Your task to perform on an android device: install app "Calculator" Image 0: 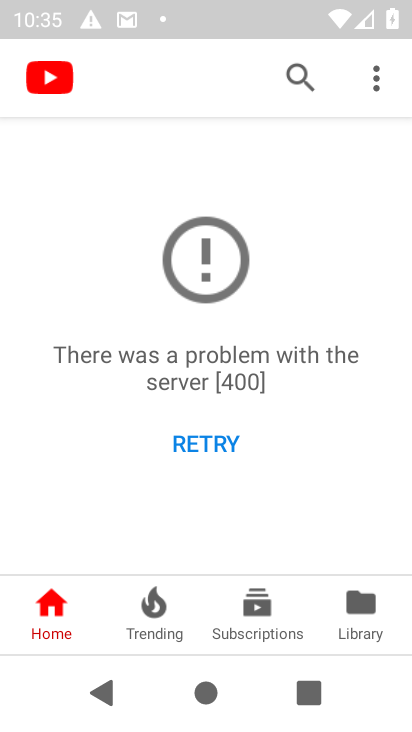
Step 0: press home button
Your task to perform on an android device: install app "Calculator" Image 1: 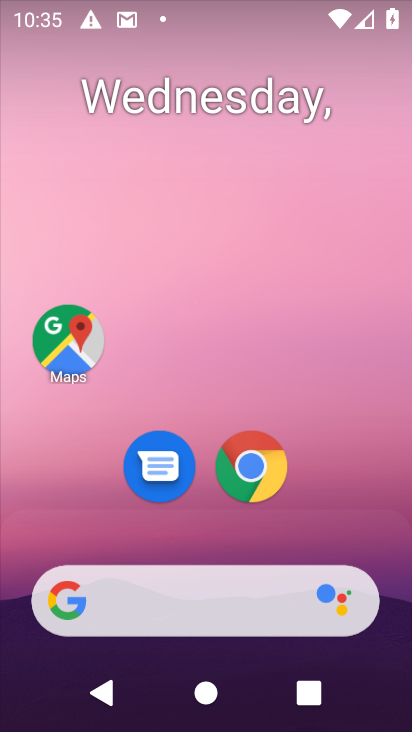
Step 1: drag from (256, 642) to (204, 12)
Your task to perform on an android device: install app "Calculator" Image 2: 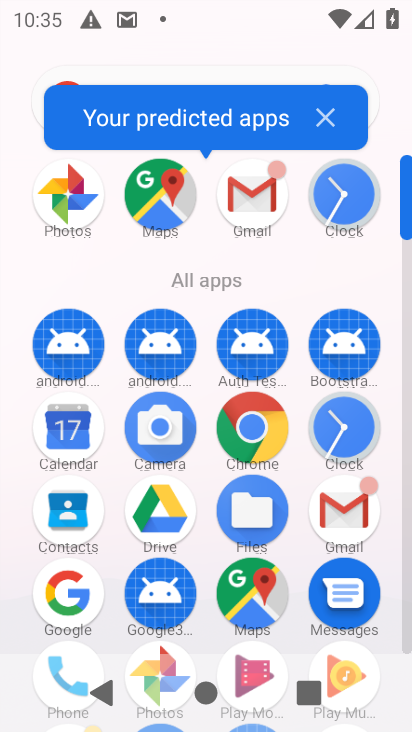
Step 2: drag from (221, 528) to (226, 198)
Your task to perform on an android device: install app "Calculator" Image 3: 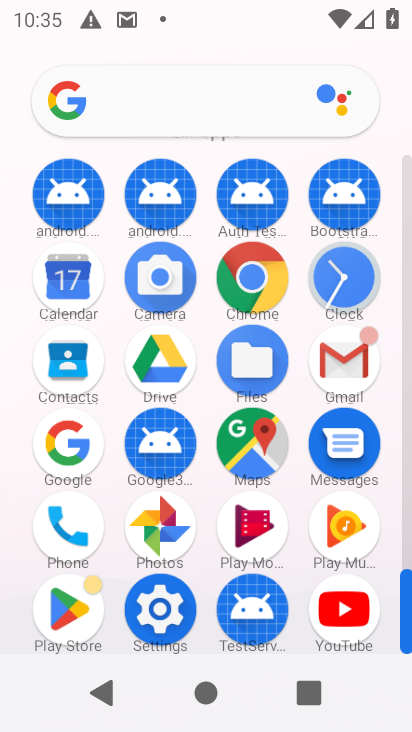
Step 3: click (48, 612)
Your task to perform on an android device: install app "Calculator" Image 4: 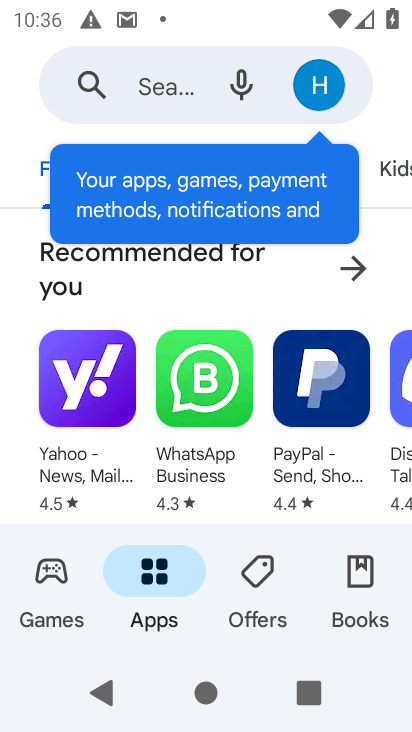
Step 4: click (172, 87)
Your task to perform on an android device: install app "Calculator" Image 5: 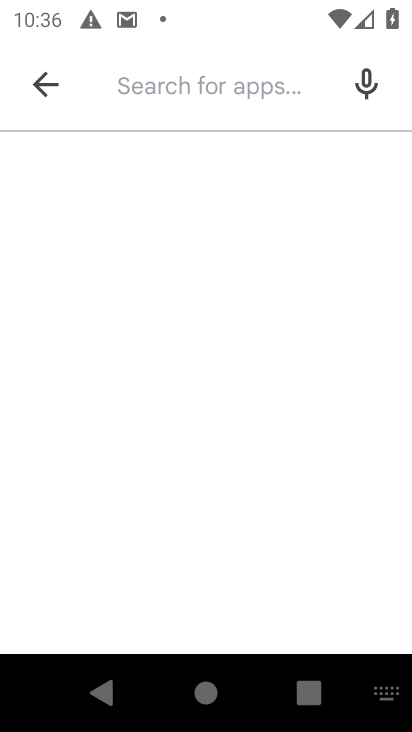
Step 5: type "calculater"
Your task to perform on an android device: install app "Calculator" Image 6: 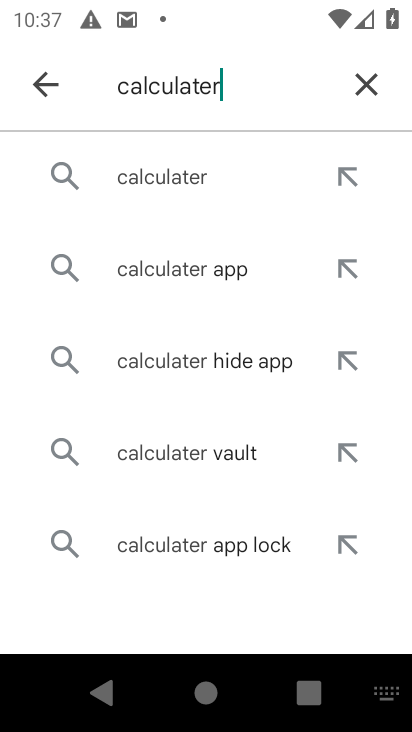
Step 6: click (206, 175)
Your task to perform on an android device: install app "Calculator" Image 7: 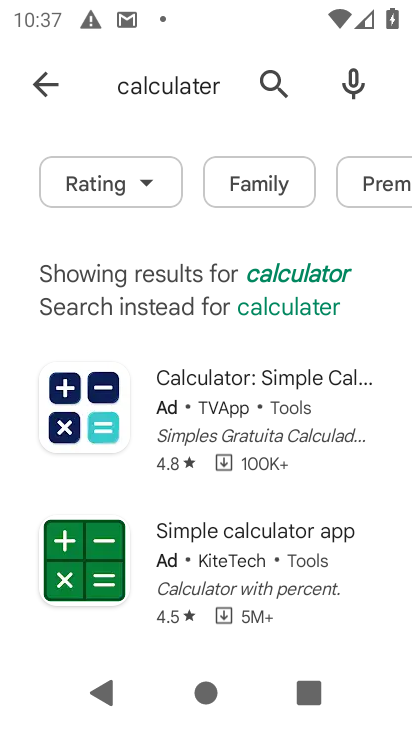
Step 7: click (221, 423)
Your task to perform on an android device: install app "Calculator" Image 8: 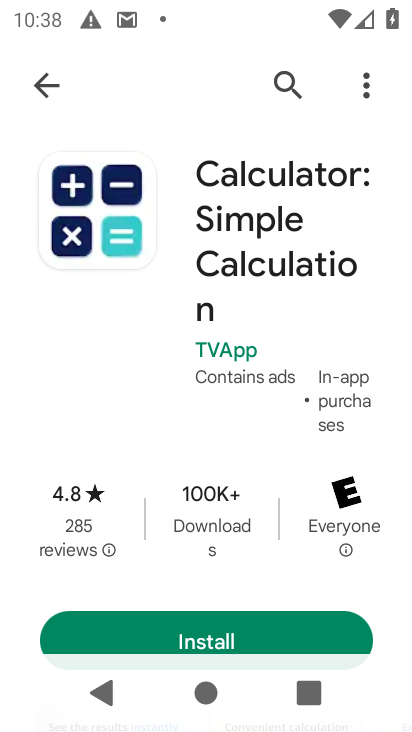
Step 8: click (114, 631)
Your task to perform on an android device: install app "Calculator" Image 9: 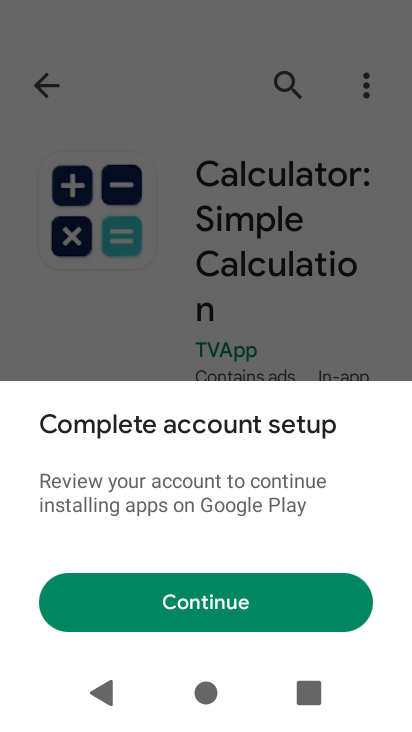
Step 9: click (121, 572)
Your task to perform on an android device: install app "Calculator" Image 10: 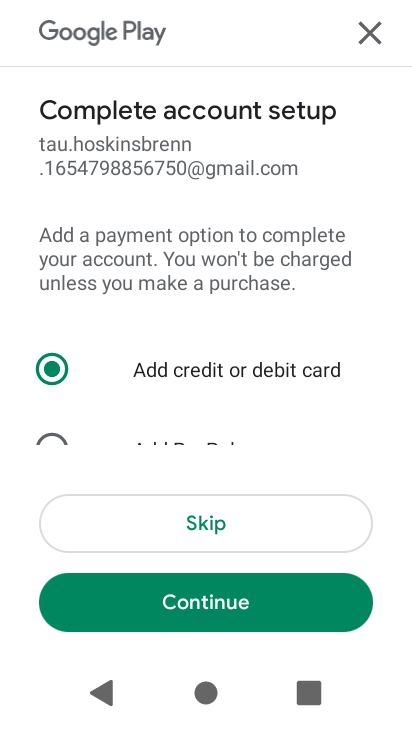
Step 10: click (170, 510)
Your task to perform on an android device: install app "Calculator" Image 11: 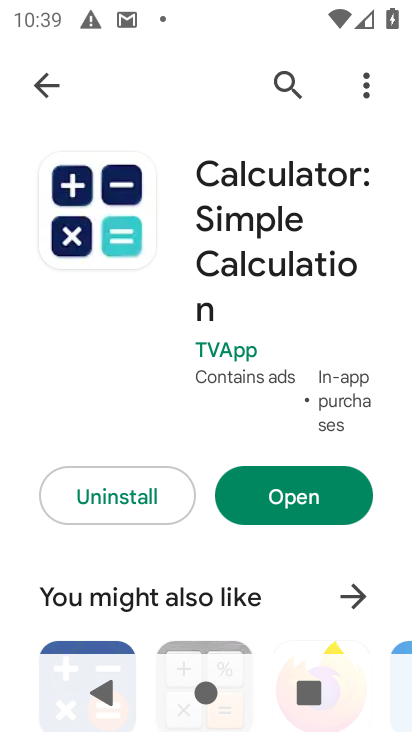
Step 11: task complete